Your task to perform on an android device: move an email to a new category in the gmail app Image 0: 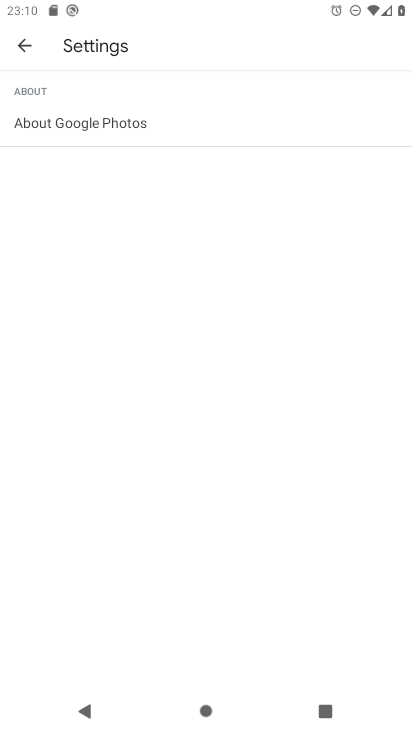
Step 0: press home button
Your task to perform on an android device: move an email to a new category in the gmail app Image 1: 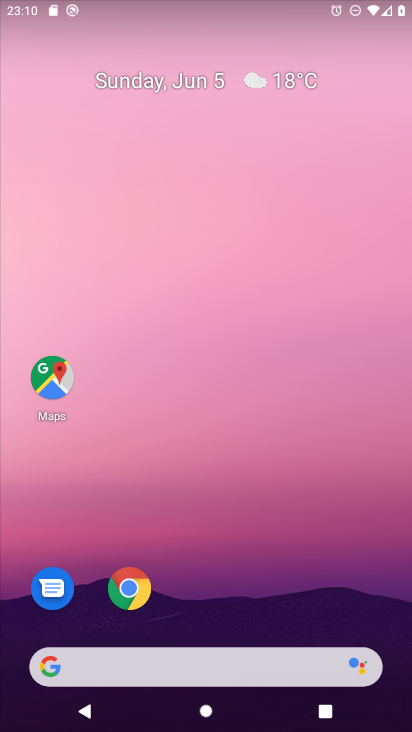
Step 1: drag from (367, 603) to (361, 154)
Your task to perform on an android device: move an email to a new category in the gmail app Image 2: 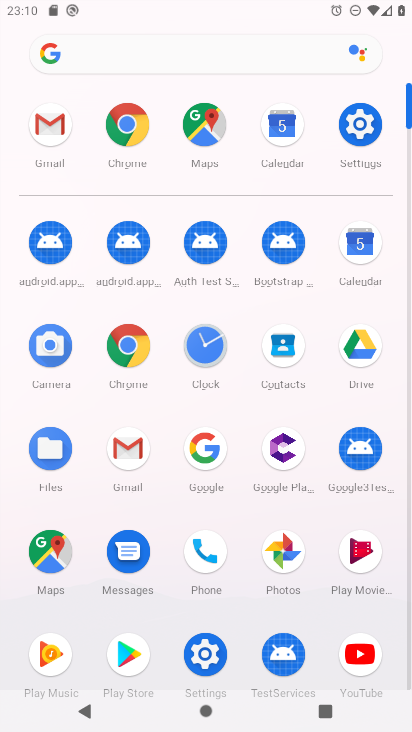
Step 2: click (135, 458)
Your task to perform on an android device: move an email to a new category in the gmail app Image 3: 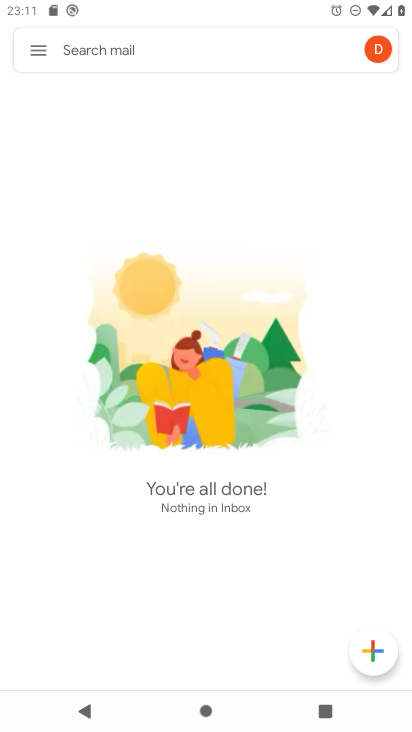
Step 3: task complete